Your task to perform on an android device: turn off improve location accuracy Image 0: 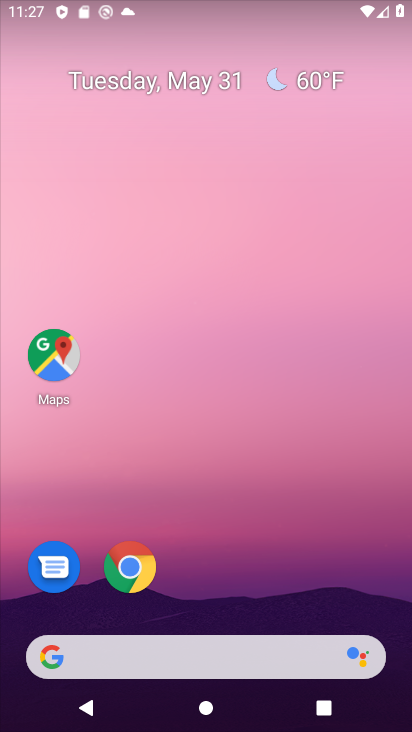
Step 0: drag from (197, 646) to (25, 322)
Your task to perform on an android device: turn off improve location accuracy Image 1: 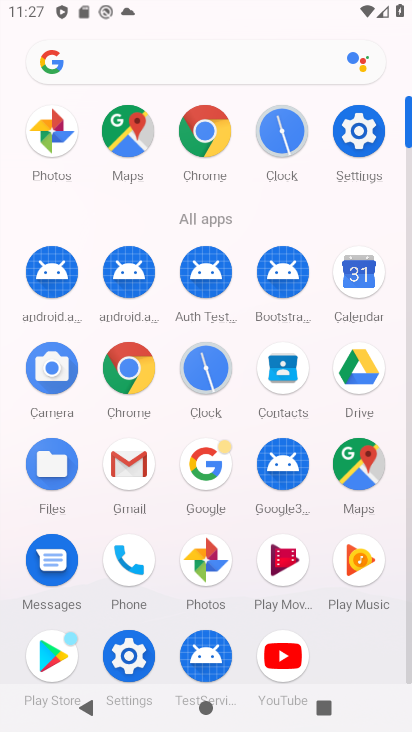
Step 1: click (356, 143)
Your task to perform on an android device: turn off improve location accuracy Image 2: 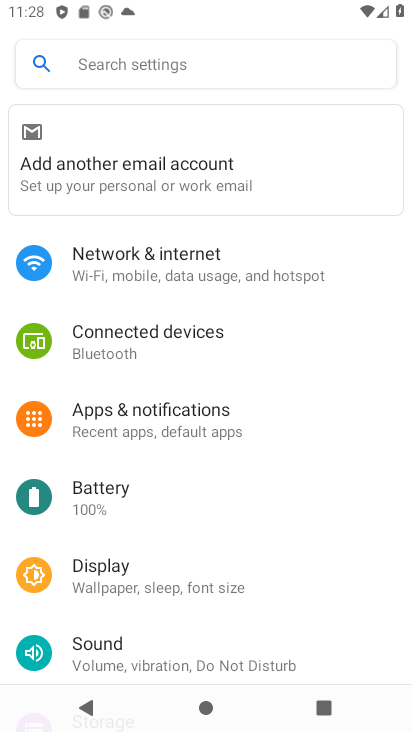
Step 2: drag from (146, 595) to (150, 173)
Your task to perform on an android device: turn off improve location accuracy Image 3: 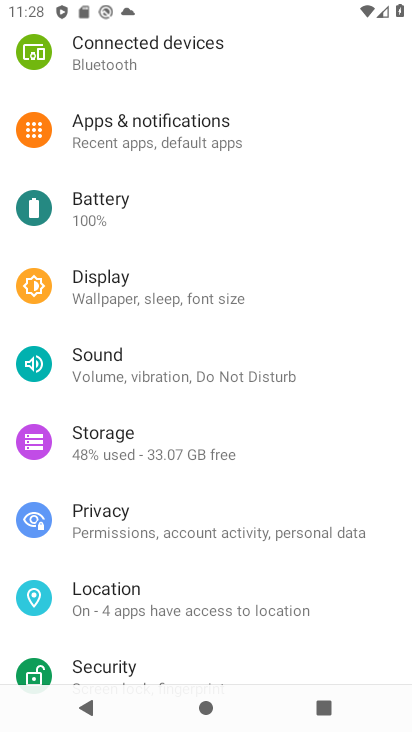
Step 3: click (122, 590)
Your task to perform on an android device: turn off improve location accuracy Image 4: 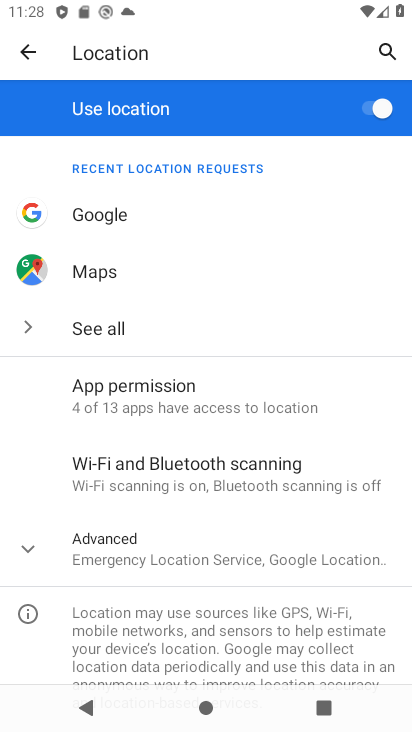
Step 4: click (243, 557)
Your task to perform on an android device: turn off improve location accuracy Image 5: 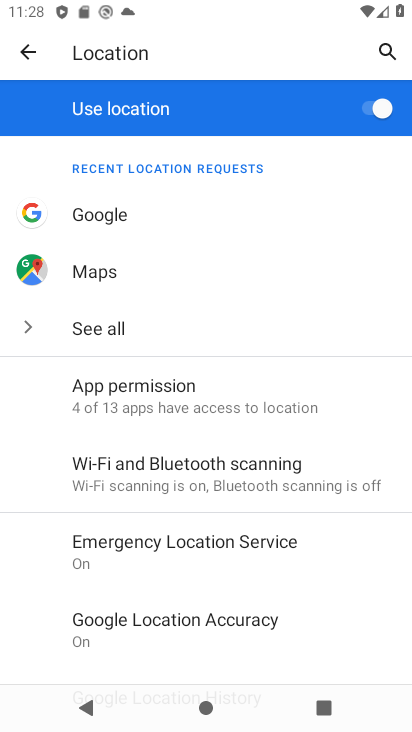
Step 5: click (242, 613)
Your task to perform on an android device: turn off improve location accuracy Image 6: 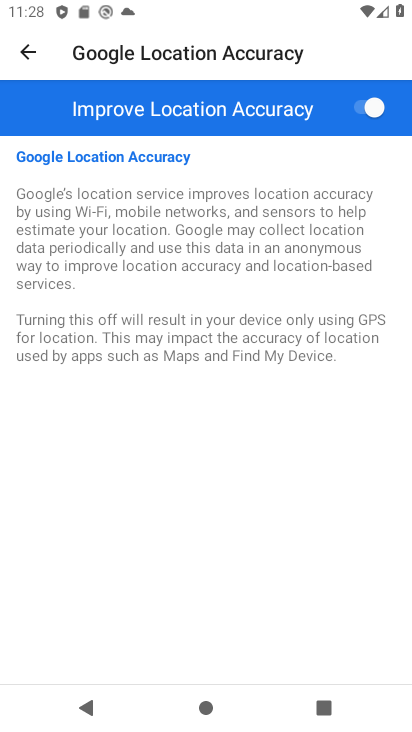
Step 6: click (368, 107)
Your task to perform on an android device: turn off improve location accuracy Image 7: 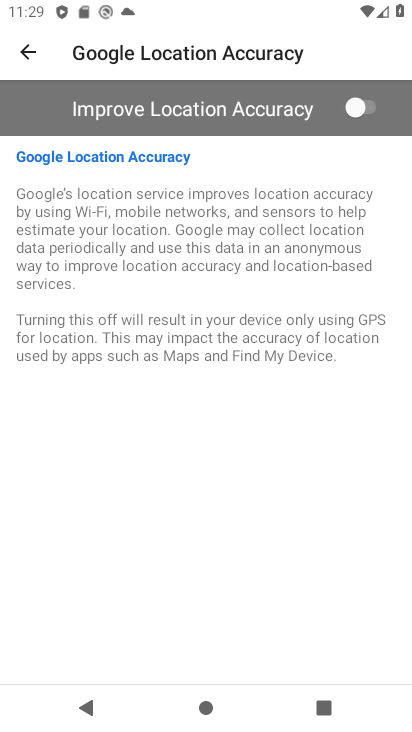
Step 7: task complete